Your task to perform on an android device: Open Google Image 0: 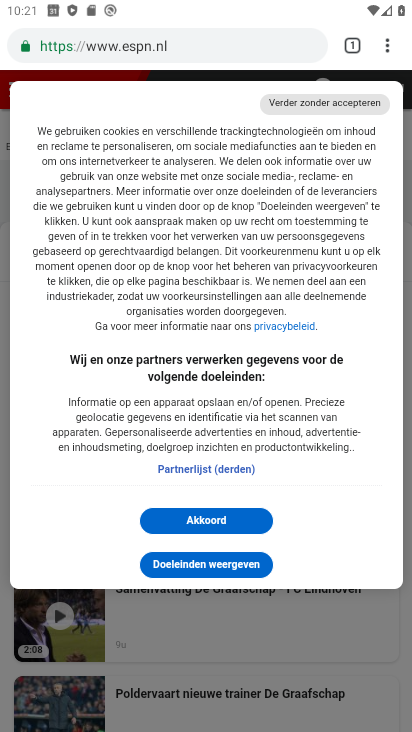
Step 0: press home button
Your task to perform on an android device: Open Google Image 1: 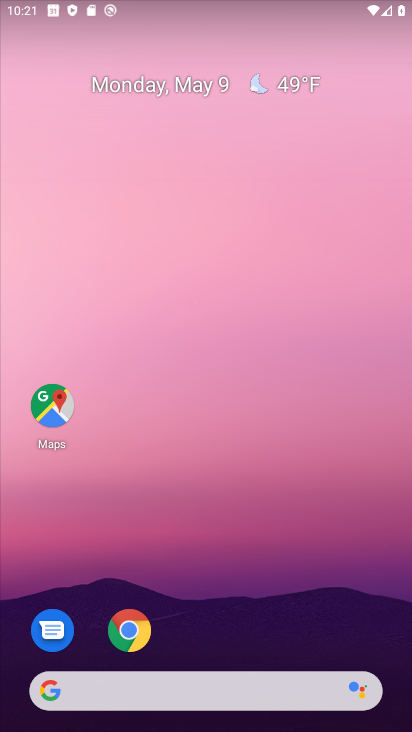
Step 1: drag from (224, 636) to (215, 160)
Your task to perform on an android device: Open Google Image 2: 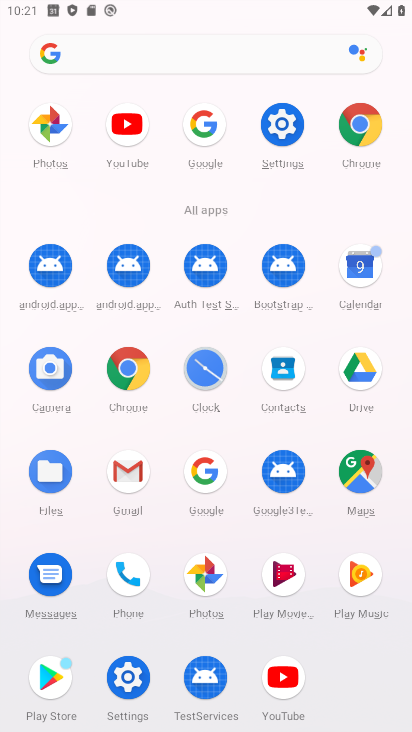
Step 2: click (201, 136)
Your task to perform on an android device: Open Google Image 3: 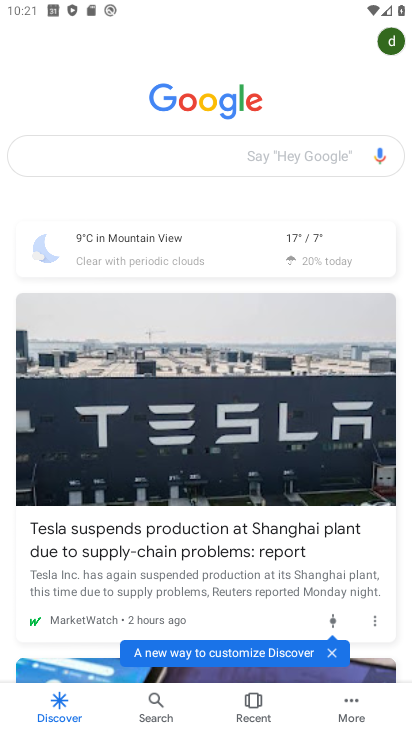
Step 3: task complete